Your task to perform on an android device: What's the weather? Image 0: 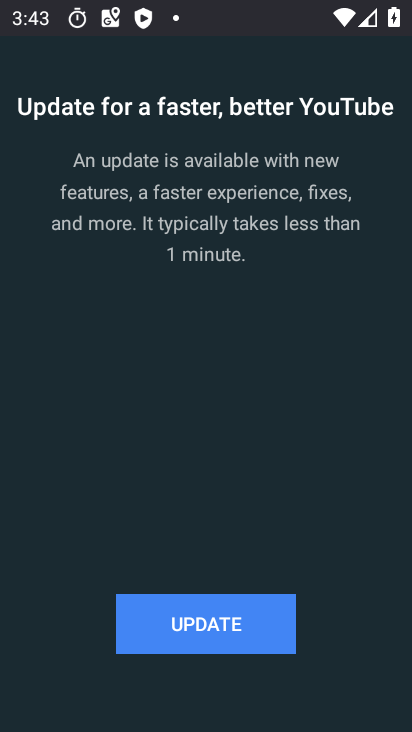
Step 0: press home button
Your task to perform on an android device: What's the weather? Image 1: 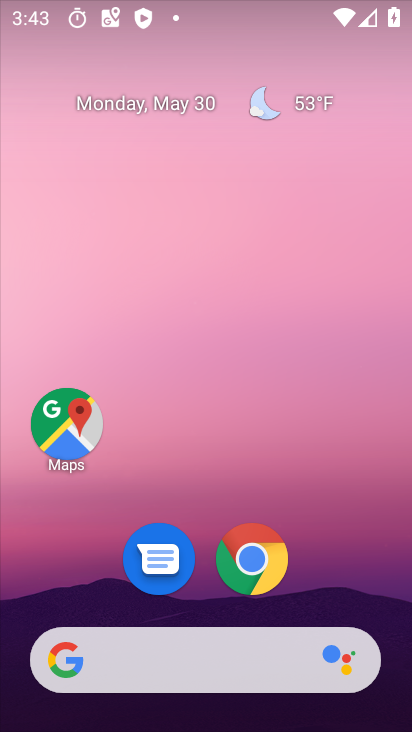
Step 1: drag from (230, 665) to (233, 259)
Your task to perform on an android device: What's the weather? Image 2: 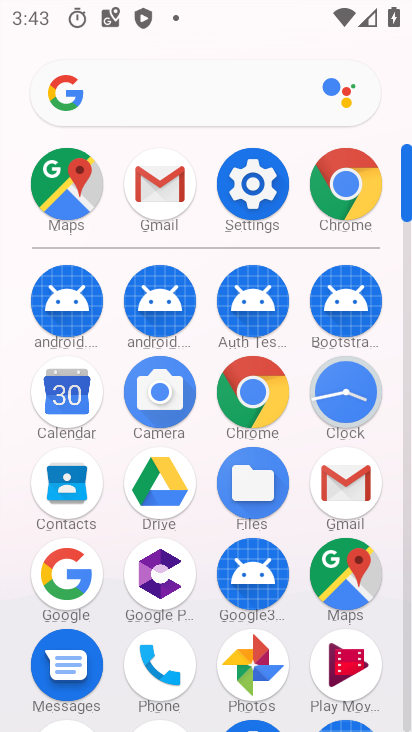
Step 2: click (64, 575)
Your task to perform on an android device: What's the weather? Image 3: 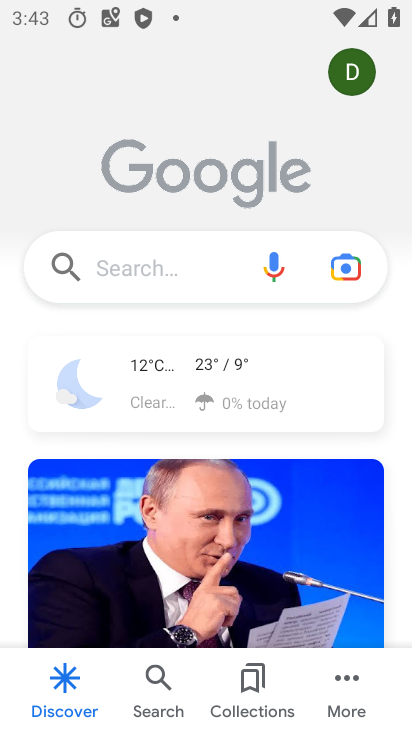
Step 3: click (156, 274)
Your task to perform on an android device: What's the weather? Image 4: 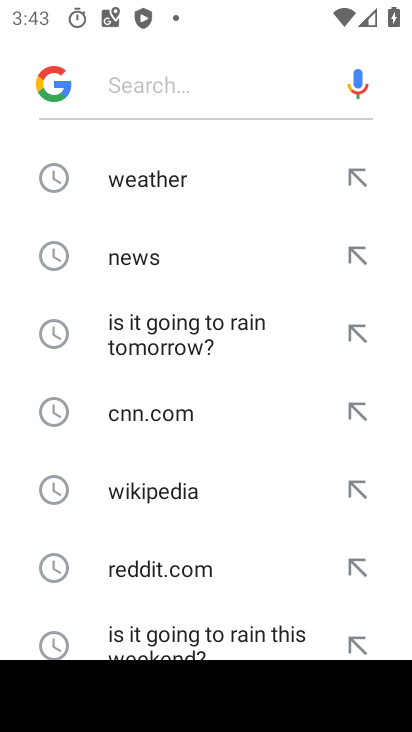
Step 4: click (131, 180)
Your task to perform on an android device: What's the weather? Image 5: 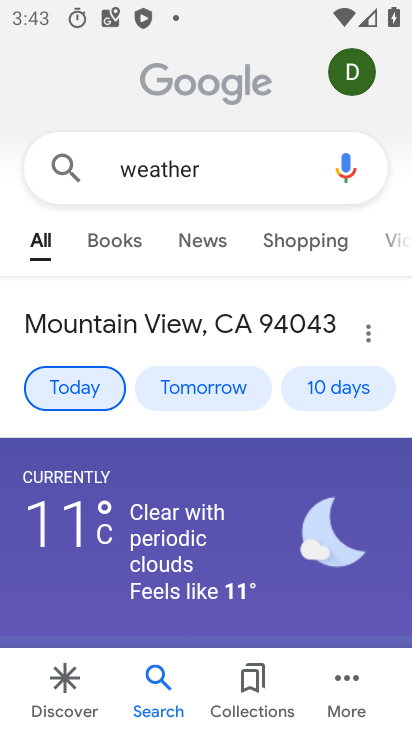
Step 5: click (82, 387)
Your task to perform on an android device: What's the weather? Image 6: 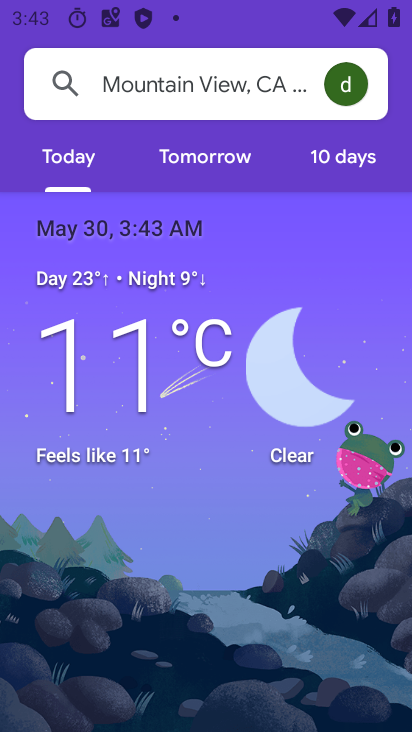
Step 6: task complete